Your task to perform on an android device: set the stopwatch Image 0: 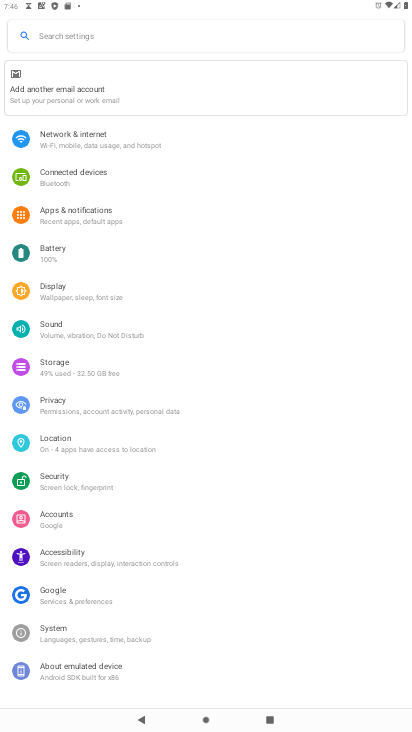
Step 0: press home button
Your task to perform on an android device: set the stopwatch Image 1: 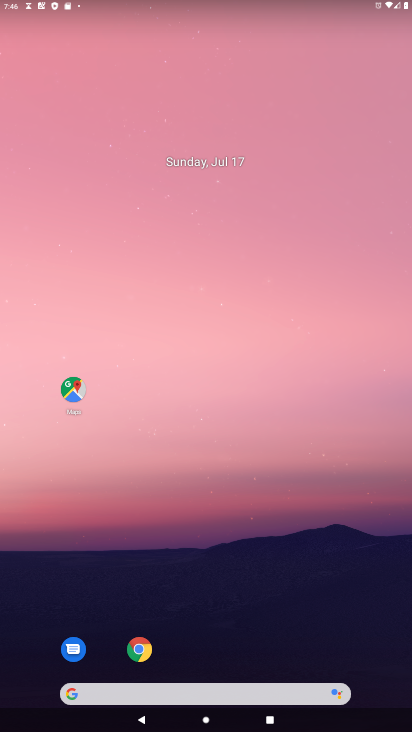
Step 1: drag from (203, 667) to (228, 173)
Your task to perform on an android device: set the stopwatch Image 2: 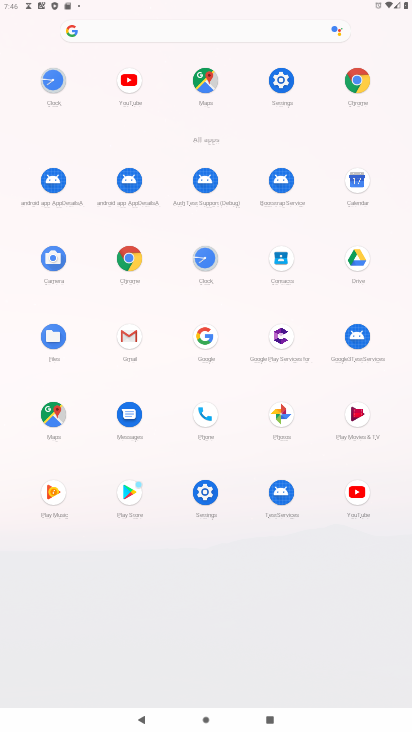
Step 2: click (207, 259)
Your task to perform on an android device: set the stopwatch Image 3: 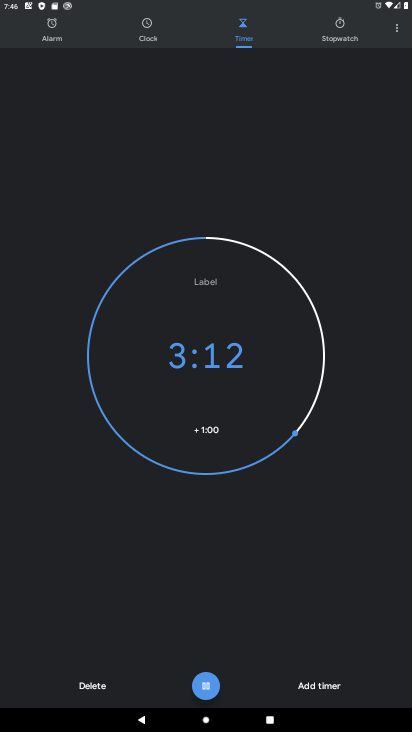
Step 3: click (349, 39)
Your task to perform on an android device: set the stopwatch Image 4: 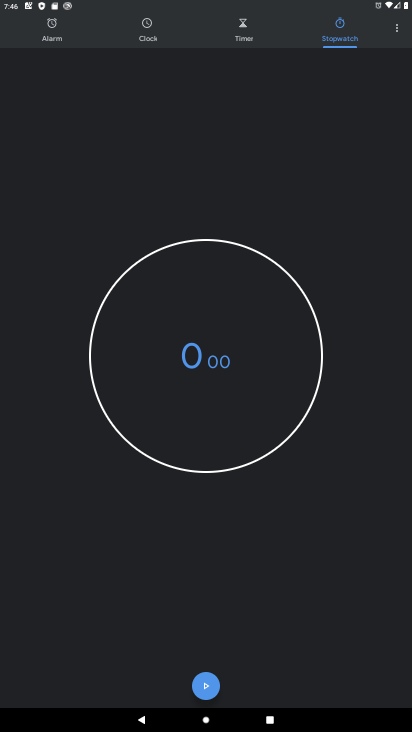
Step 4: click (205, 679)
Your task to perform on an android device: set the stopwatch Image 5: 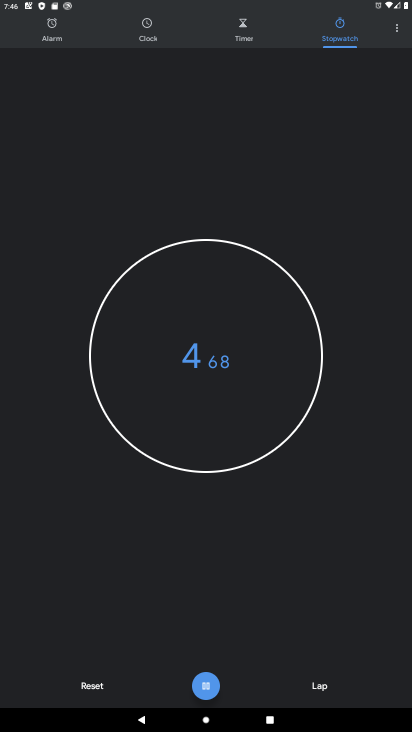
Step 5: task complete